Your task to perform on an android device: Open Google Maps and go to "Timeline" Image 0: 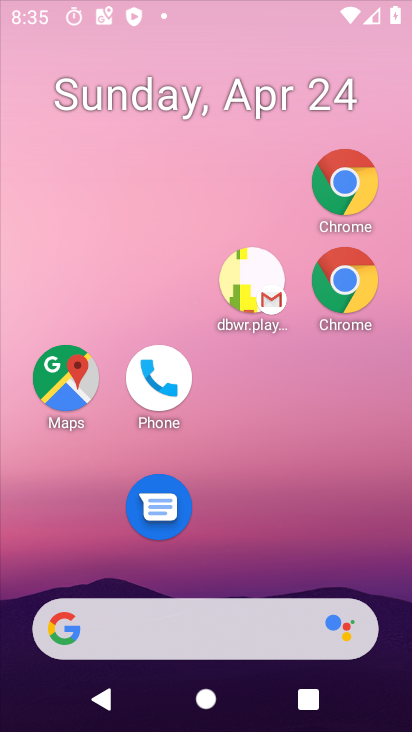
Step 0: drag from (292, 680) to (207, 39)
Your task to perform on an android device: Open Google Maps and go to "Timeline" Image 1: 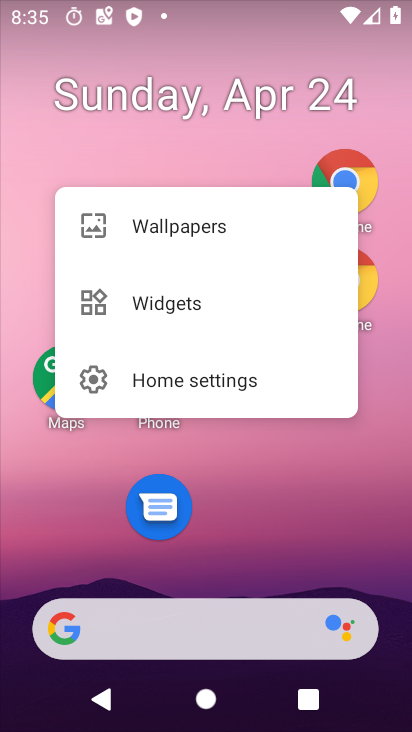
Step 1: drag from (342, 504) to (141, 13)
Your task to perform on an android device: Open Google Maps and go to "Timeline" Image 2: 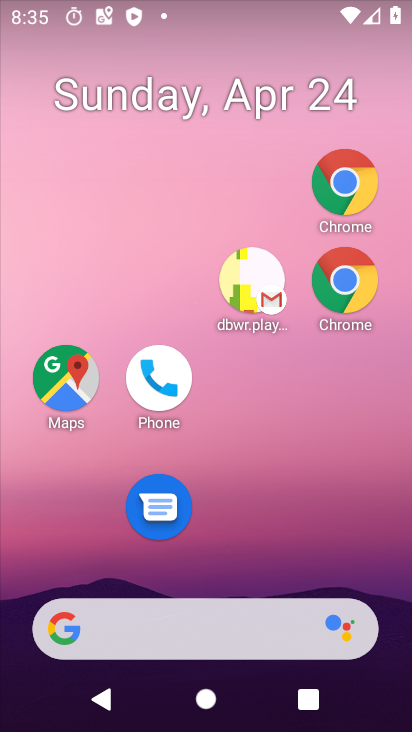
Step 2: click (48, 158)
Your task to perform on an android device: Open Google Maps and go to "Timeline" Image 3: 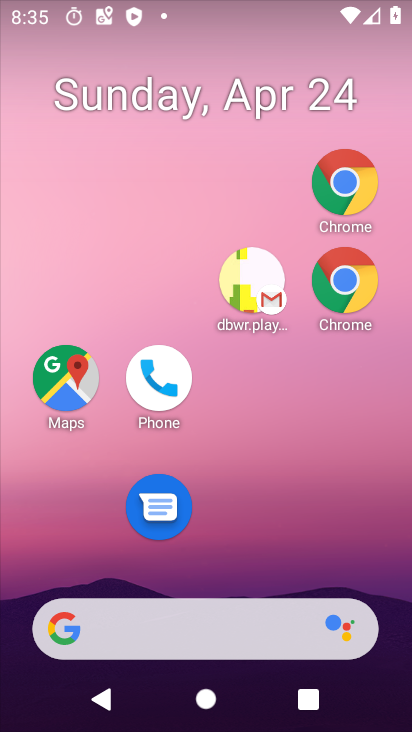
Step 3: drag from (278, 641) to (168, 0)
Your task to perform on an android device: Open Google Maps and go to "Timeline" Image 4: 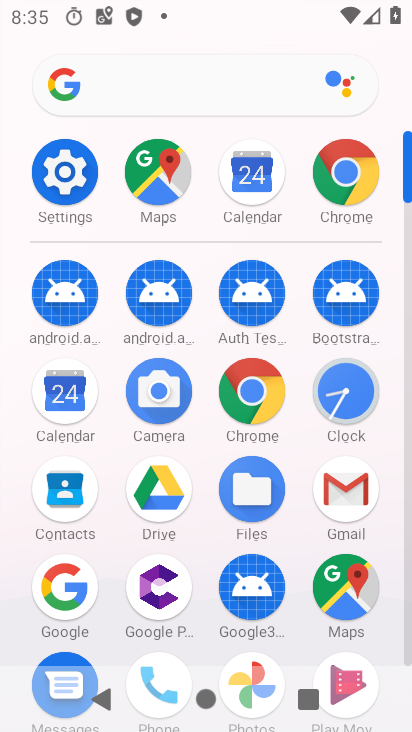
Step 4: drag from (226, 380) to (177, 47)
Your task to perform on an android device: Open Google Maps and go to "Timeline" Image 5: 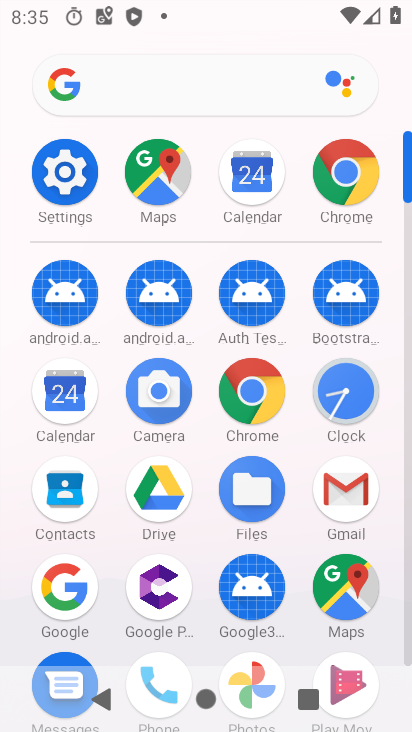
Step 5: click (151, 178)
Your task to perform on an android device: Open Google Maps and go to "Timeline" Image 6: 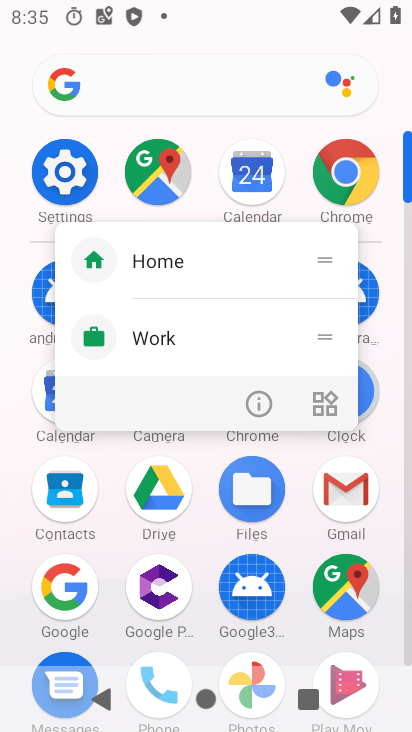
Step 6: click (152, 175)
Your task to perform on an android device: Open Google Maps and go to "Timeline" Image 7: 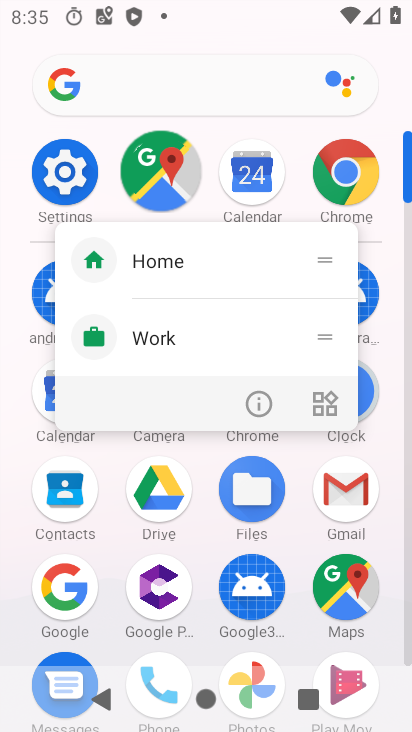
Step 7: click (156, 175)
Your task to perform on an android device: Open Google Maps and go to "Timeline" Image 8: 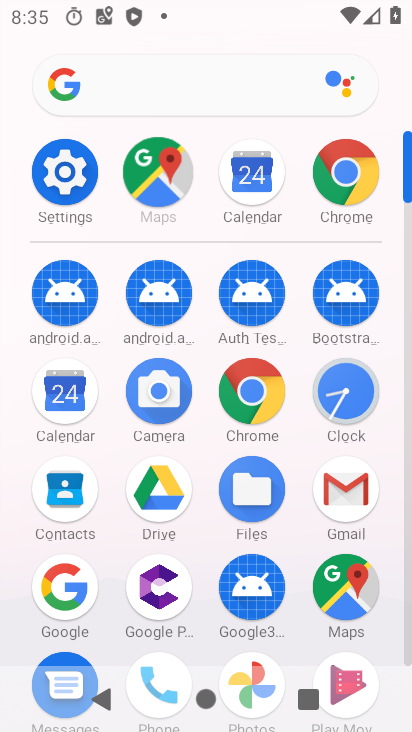
Step 8: click (159, 172)
Your task to perform on an android device: Open Google Maps and go to "Timeline" Image 9: 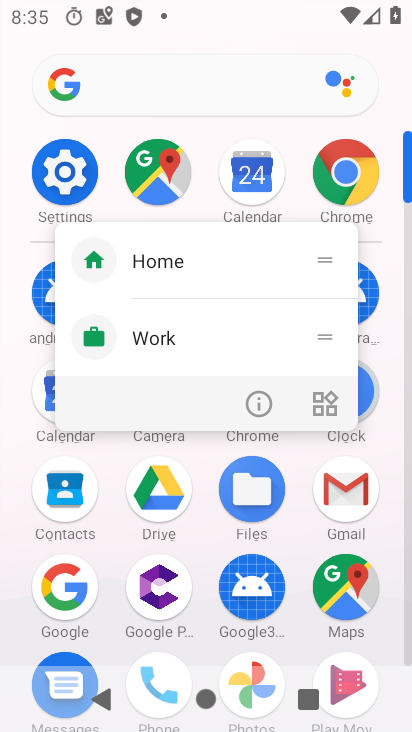
Step 9: click (178, 162)
Your task to perform on an android device: Open Google Maps and go to "Timeline" Image 10: 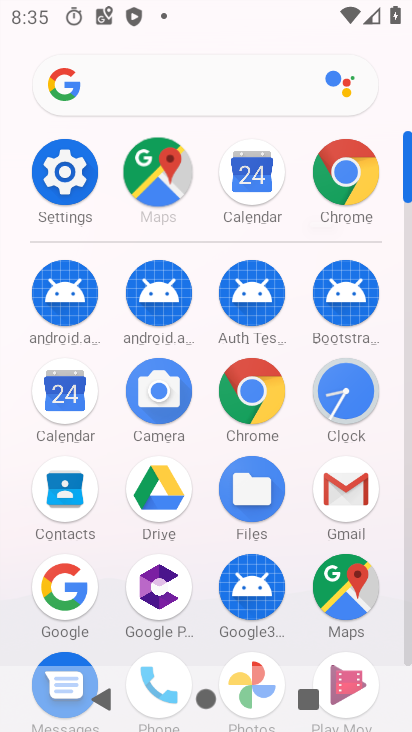
Step 10: click (180, 162)
Your task to perform on an android device: Open Google Maps and go to "Timeline" Image 11: 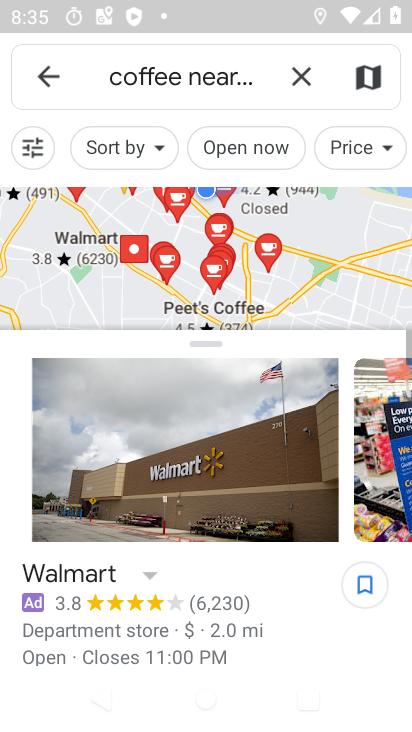
Step 11: click (44, 75)
Your task to perform on an android device: Open Google Maps and go to "Timeline" Image 12: 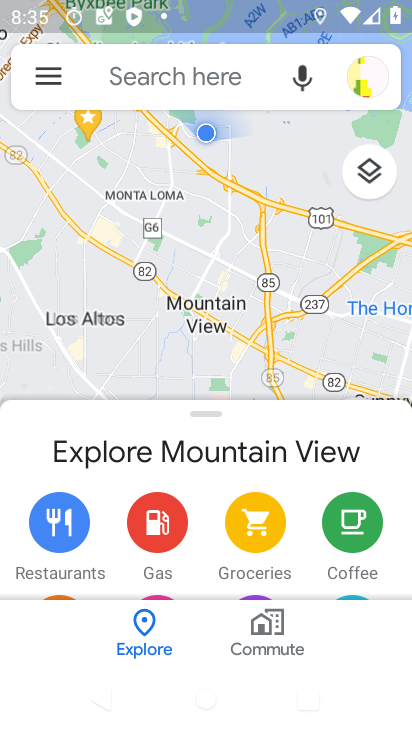
Step 12: drag from (44, 75) to (102, 250)
Your task to perform on an android device: Open Google Maps and go to "Timeline" Image 13: 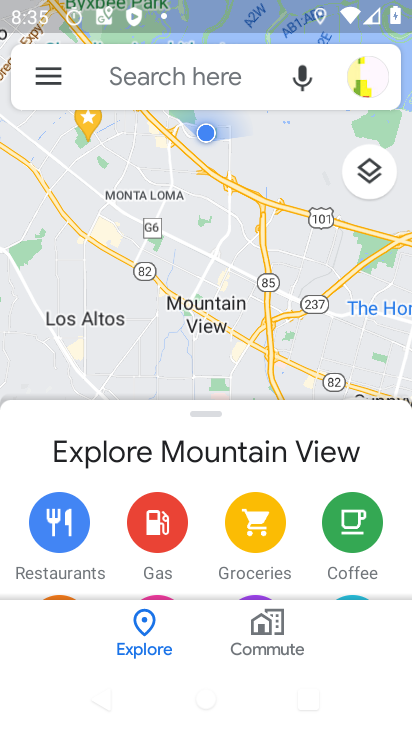
Step 13: click (47, 75)
Your task to perform on an android device: Open Google Maps and go to "Timeline" Image 14: 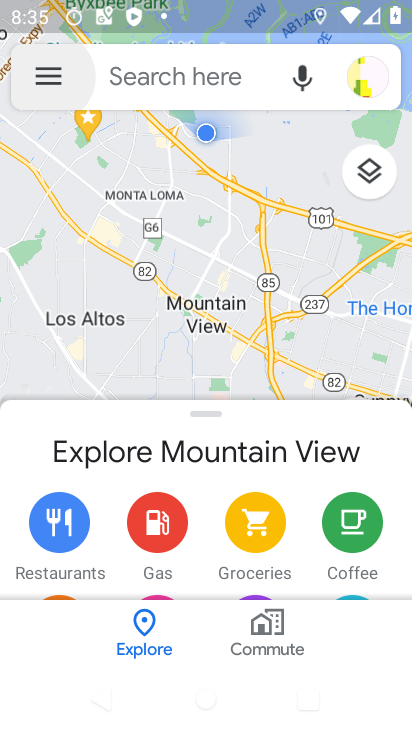
Step 14: click (48, 74)
Your task to perform on an android device: Open Google Maps and go to "Timeline" Image 15: 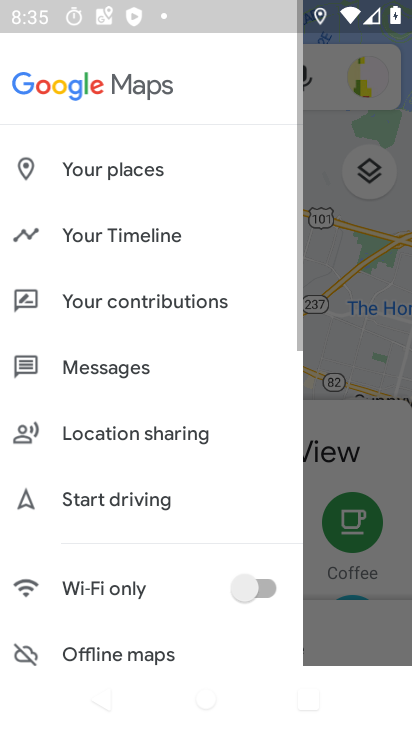
Step 15: drag from (48, 74) to (152, 233)
Your task to perform on an android device: Open Google Maps and go to "Timeline" Image 16: 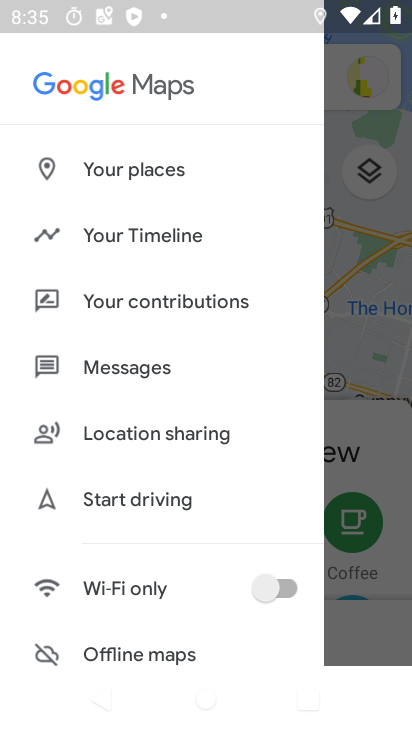
Step 16: click (152, 233)
Your task to perform on an android device: Open Google Maps and go to "Timeline" Image 17: 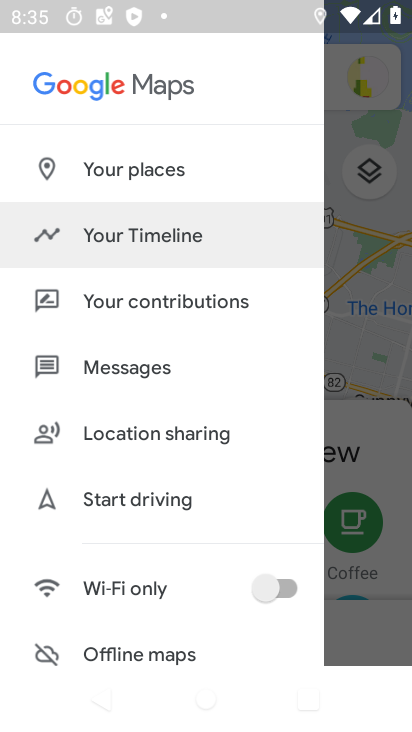
Step 17: click (152, 233)
Your task to perform on an android device: Open Google Maps and go to "Timeline" Image 18: 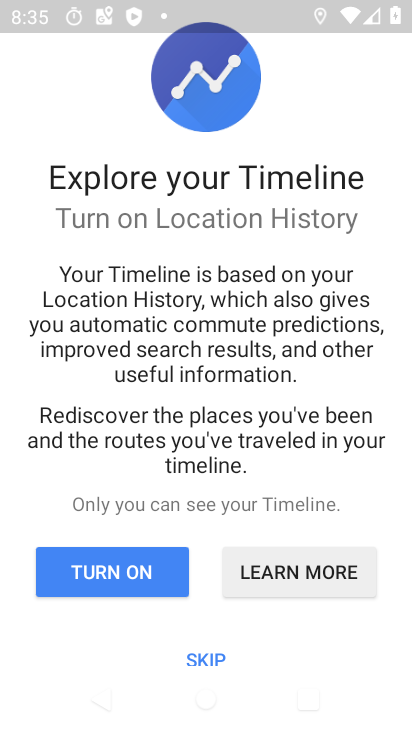
Step 18: click (117, 568)
Your task to perform on an android device: Open Google Maps and go to "Timeline" Image 19: 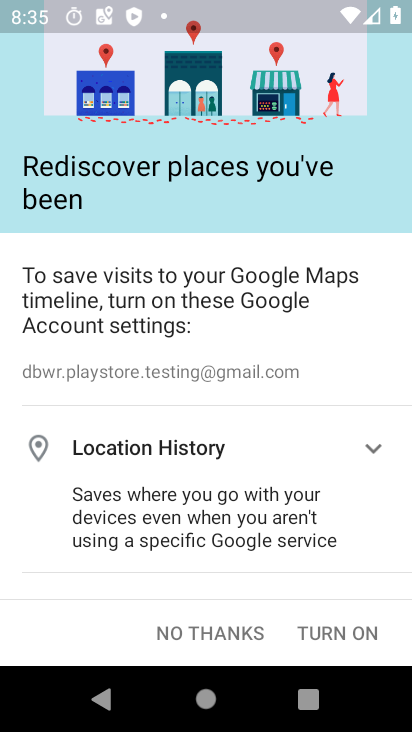
Step 19: task complete